Your task to perform on an android device: turn on the 12-hour format for clock Image 0: 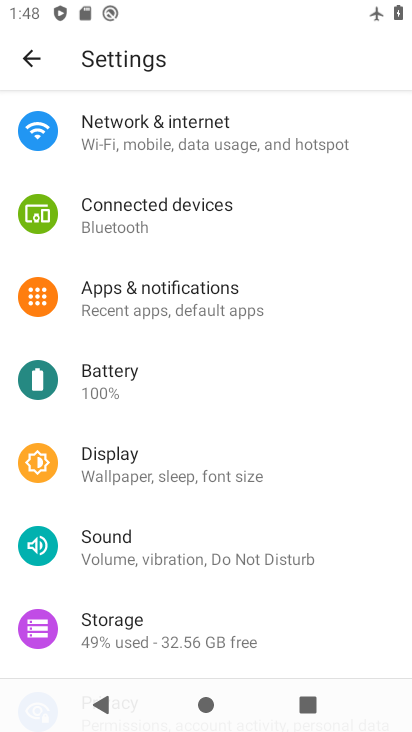
Step 0: press home button
Your task to perform on an android device: turn on the 12-hour format for clock Image 1: 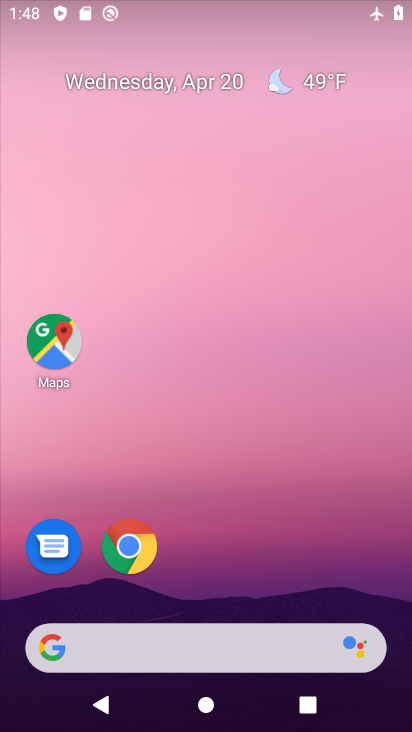
Step 1: drag from (229, 598) to (278, 114)
Your task to perform on an android device: turn on the 12-hour format for clock Image 2: 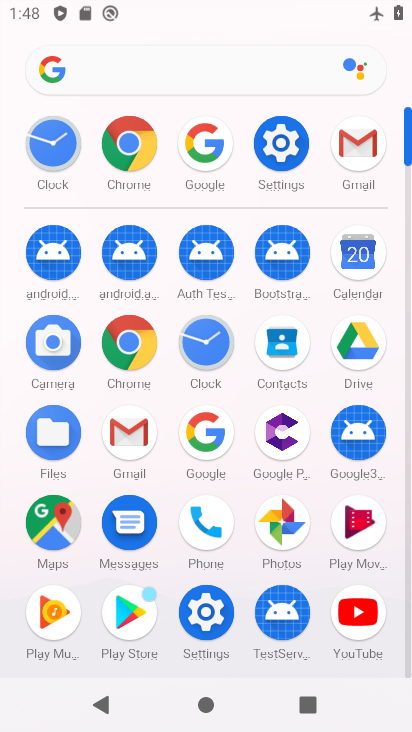
Step 2: click (202, 344)
Your task to perform on an android device: turn on the 12-hour format for clock Image 3: 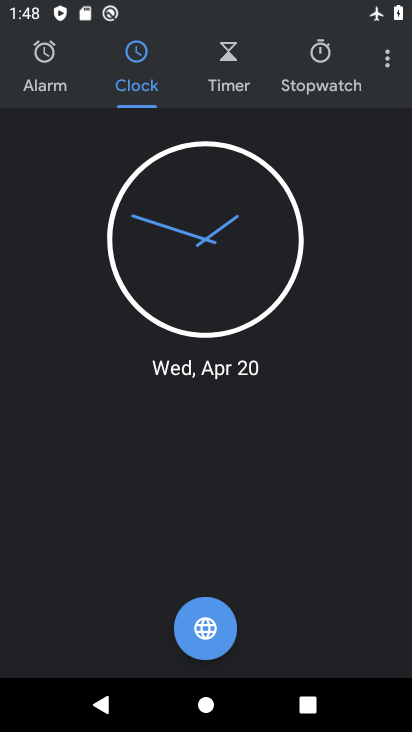
Step 3: click (384, 55)
Your task to perform on an android device: turn on the 12-hour format for clock Image 4: 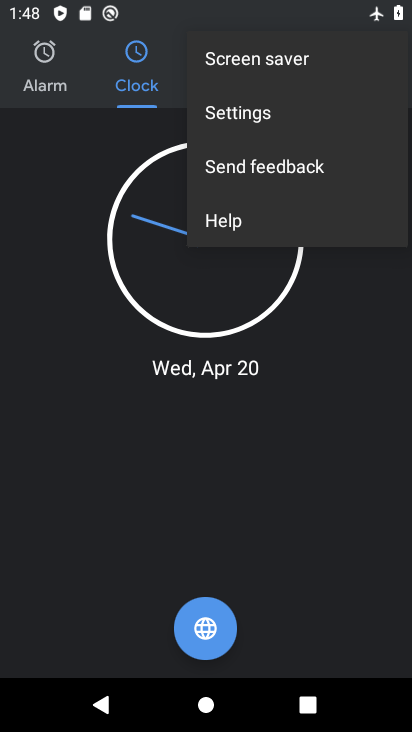
Step 4: click (279, 120)
Your task to perform on an android device: turn on the 12-hour format for clock Image 5: 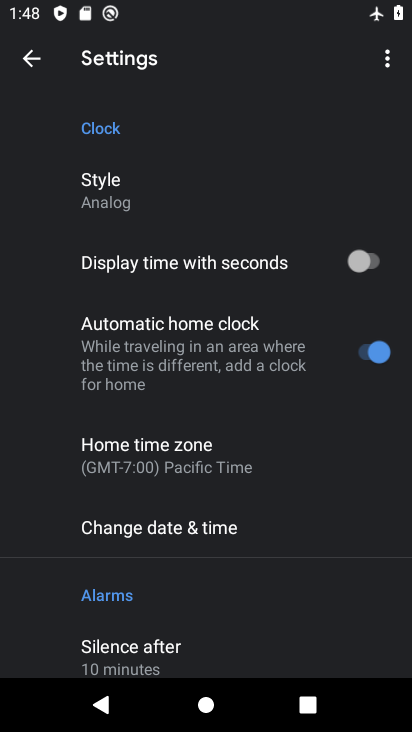
Step 5: click (168, 528)
Your task to perform on an android device: turn on the 12-hour format for clock Image 6: 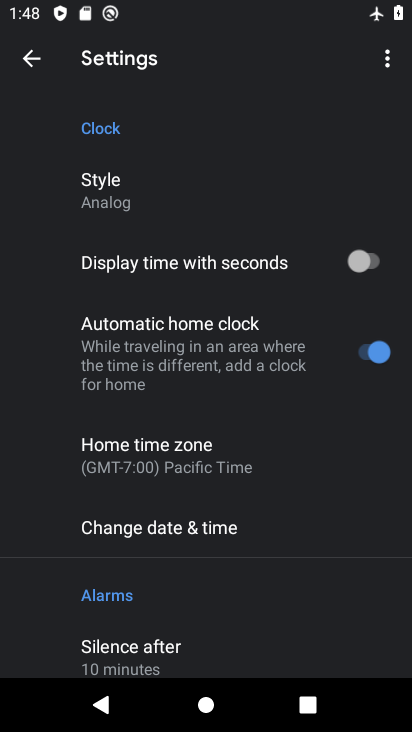
Step 6: click (168, 528)
Your task to perform on an android device: turn on the 12-hour format for clock Image 7: 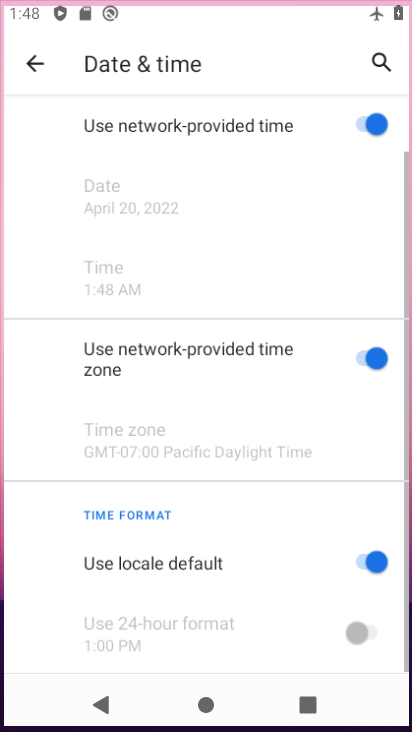
Step 7: click (168, 528)
Your task to perform on an android device: turn on the 12-hour format for clock Image 8: 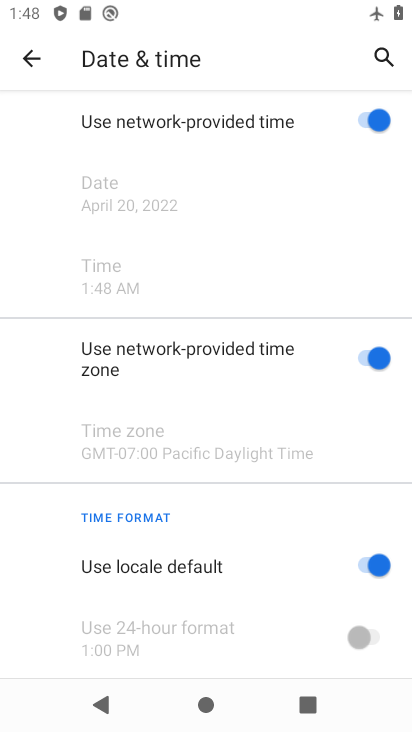
Step 8: drag from (169, 614) to (207, 213)
Your task to perform on an android device: turn on the 12-hour format for clock Image 9: 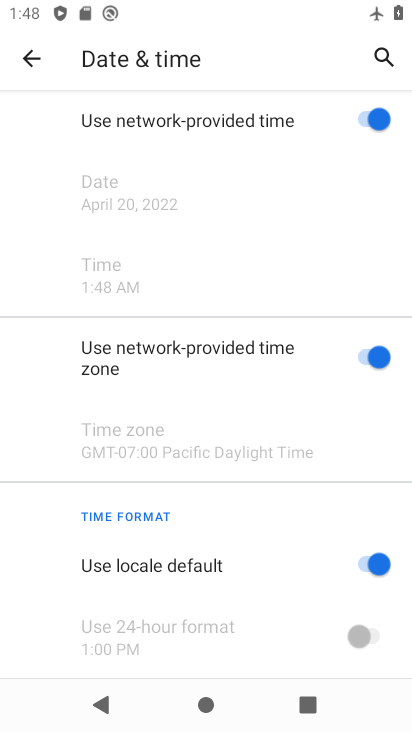
Step 9: click (360, 556)
Your task to perform on an android device: turn on the 12-hour format for clock Image 10: 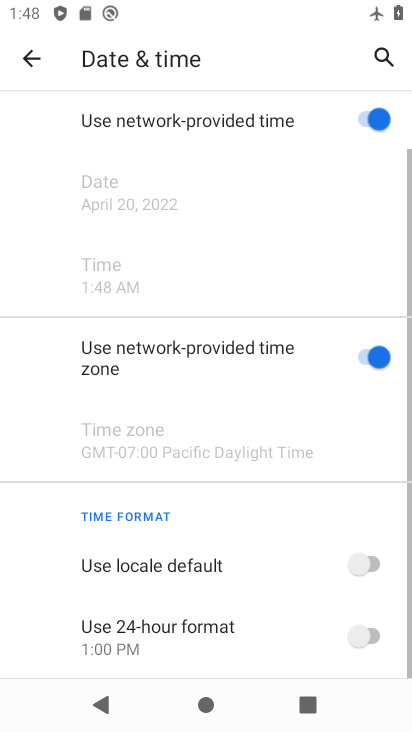
Step 10: click (358, 626)
Your task to perform on an android device: turn on the 12-hour format for clock Image 11: 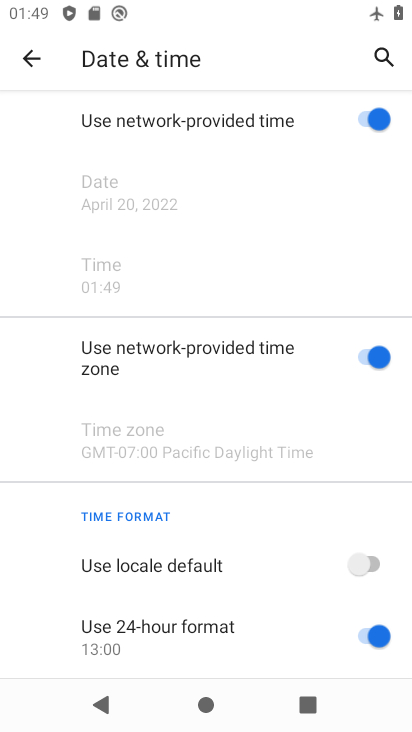
Step 11: task complete